Your task to perform on an android device: change notification settings in the gmail app Image 0: 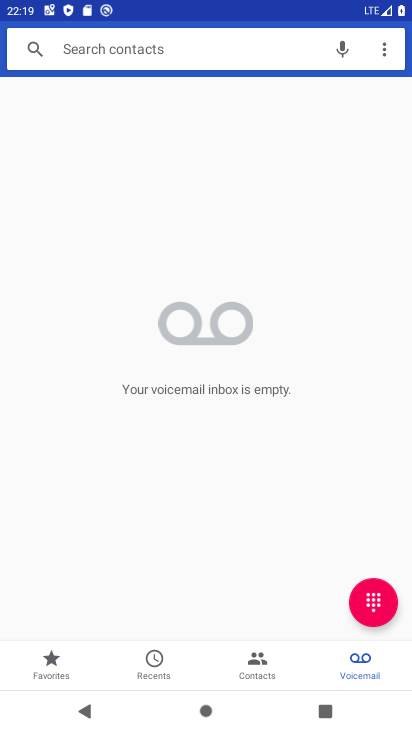
Step 0: press back button
Your task to perform on an android device: change notification settings in the gmail app Image 1: 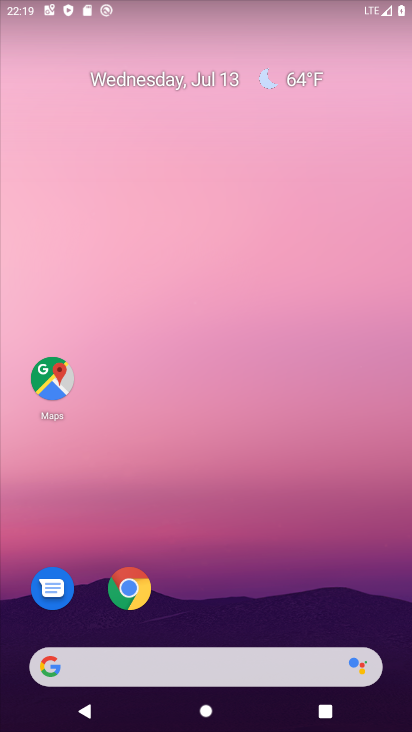
Step 1: drag from (231, 538) to (231, 14)
Your task to perform on an android device: change notification settings in the gmail app Image 2: 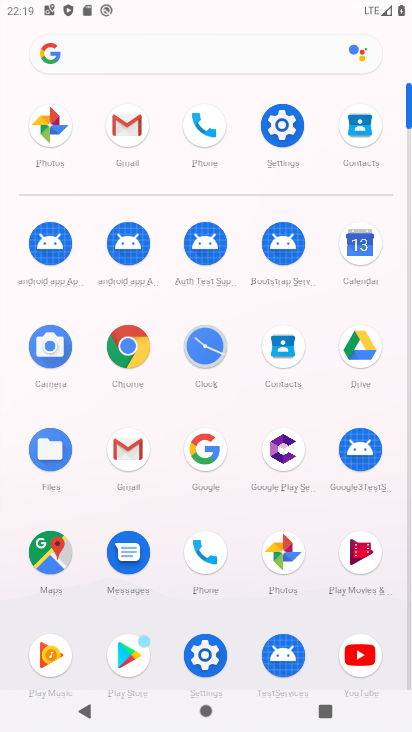
Step 2: click (129, 128)
Your task to perform on an android device: change notification settings in the gmail app Image 3: 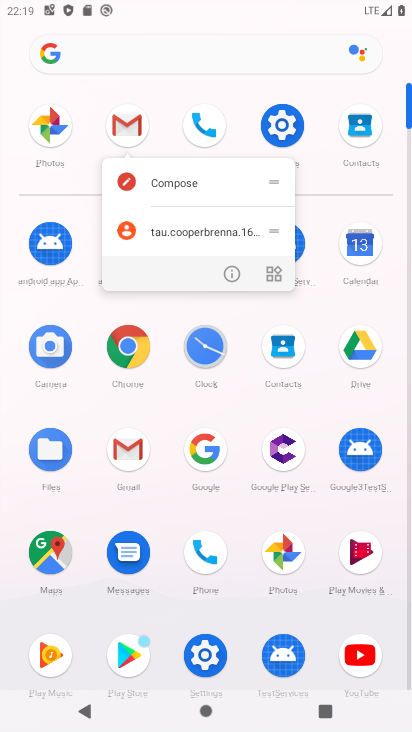
Step 3: click (232, 274)
Your task to perform on an android device: change notification settings in the gmail app Image 4: 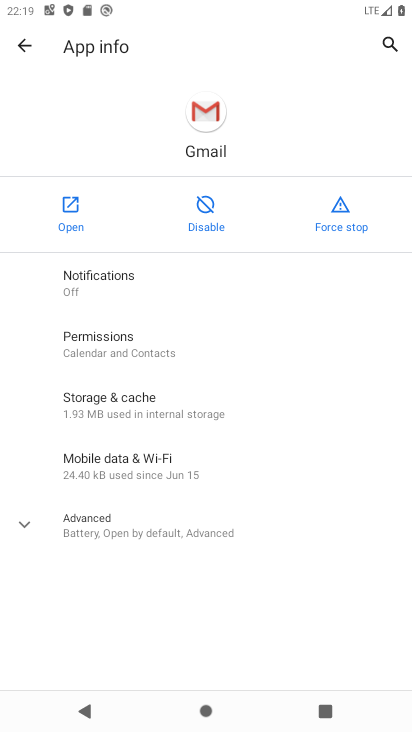
Step 4: click (145, 284)
Your task to perform on an android device: change notification settings in the gmail app Image 5: 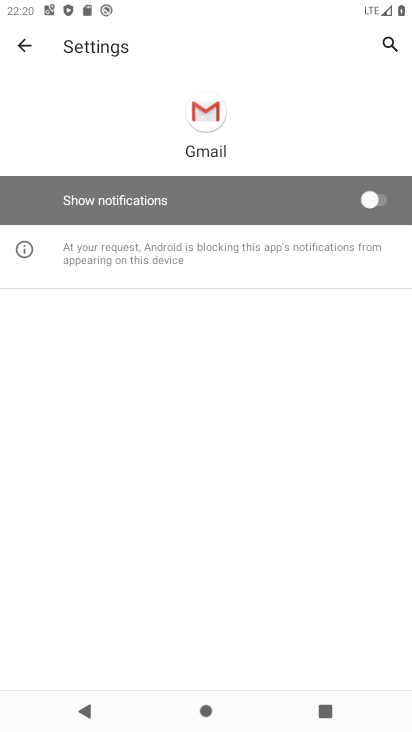
Step 5: click (364, 199)
Your task to perform on an android device: change notification settings in the gmail app Image 6: 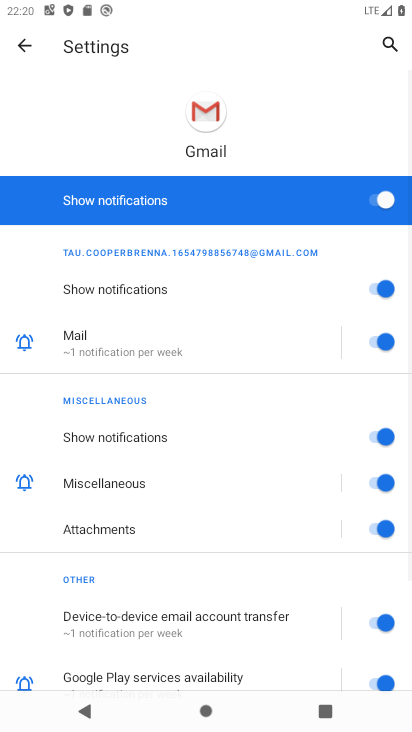
Step 6: task complete